Your task to perform on an android device: turn off javascript in the chrome app Image 0: 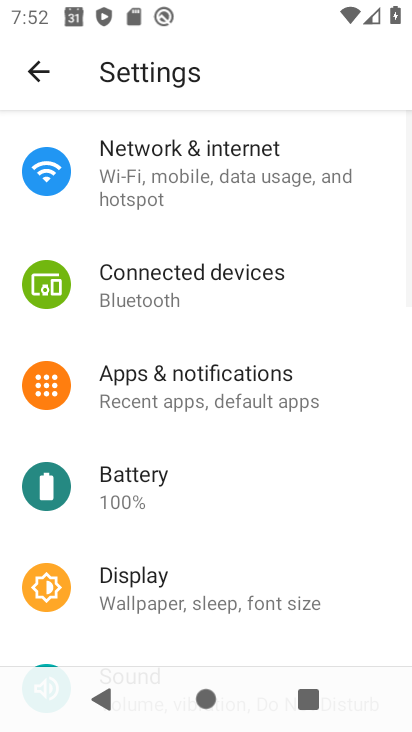
Step 0: press home button
Your task to perform on an android device: turn off javascript in the chrome app Image 1: 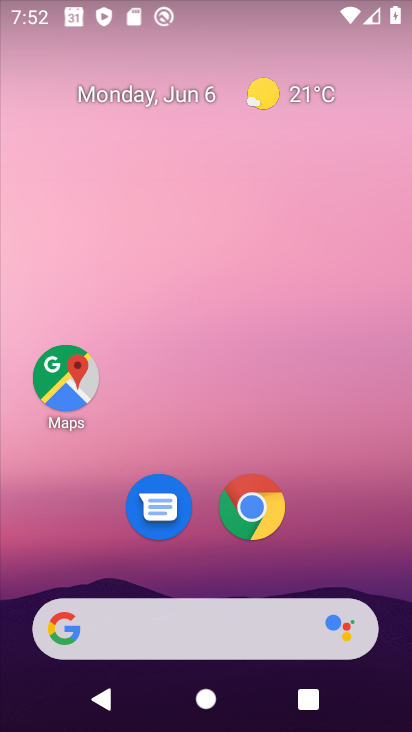
Step 1: drag from (203, 575) to (225, 168)
Your task to perform on an android device: turn off javascript in the chrome app Image 2: 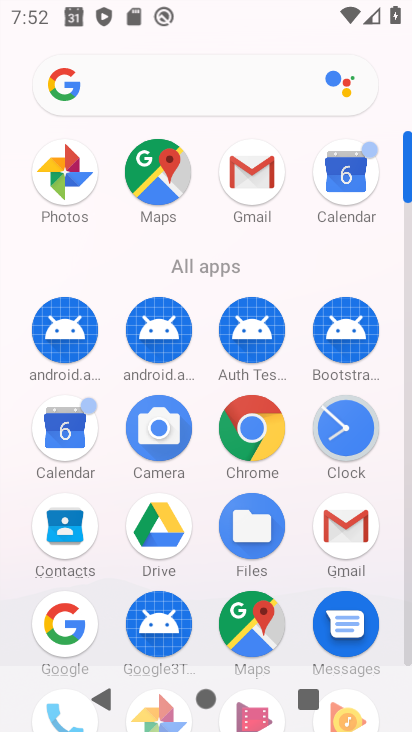
Step 2: click (260, 430)
Your task to perform on an android device: turn off javascript in the chrome app Image 3: 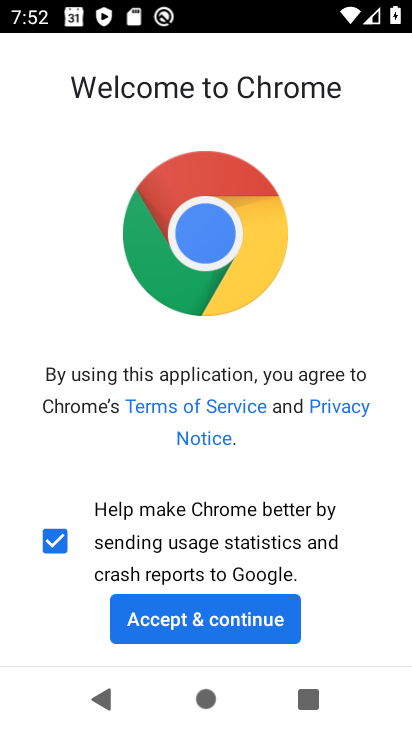
Step 3: click (162, 627)
Your task to perform on an android device: turn off javascript in the chrome app Image 4: 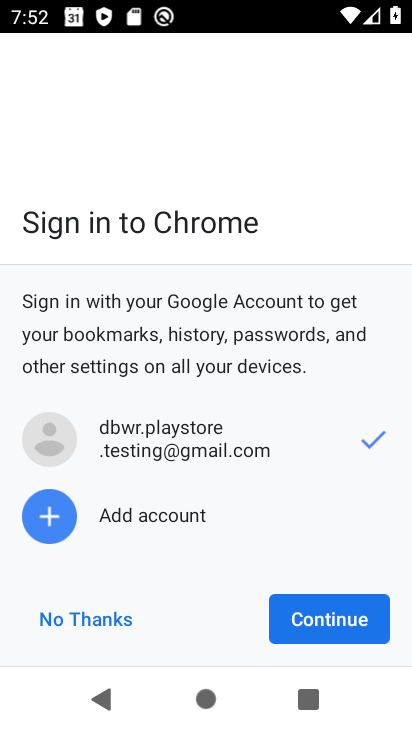
Step 4: click (330, 618)
Your task to perform on an android device: turn off javascript in the chrome app Image 5: 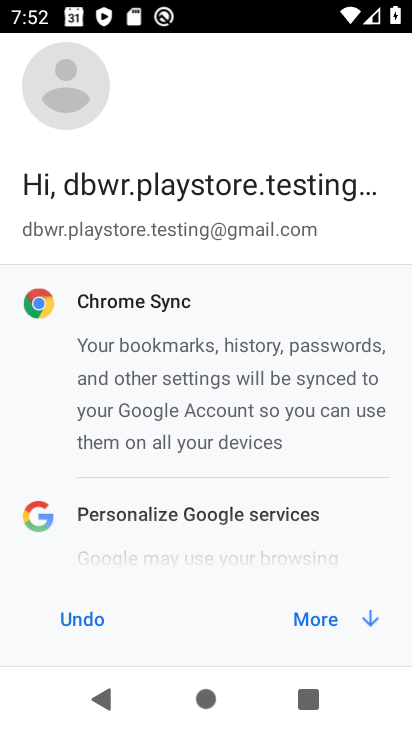
Step 5: click (330, 618)
Your task to perform on an android device: turn off javascript in the chrome app Image 6: 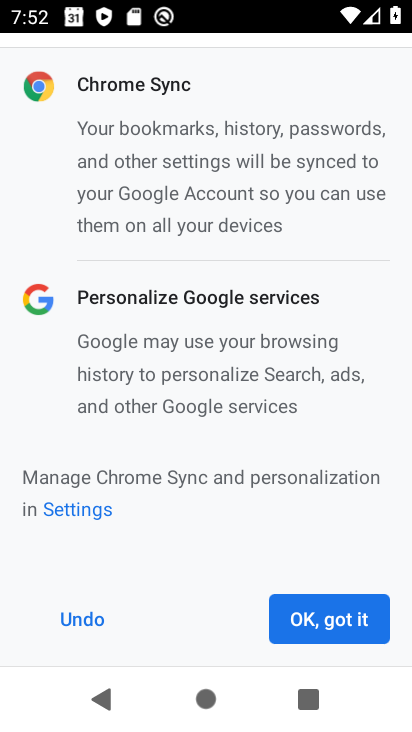
Step 6: click (330, 618)
Your task to perform on an android device: turn off javascript in the chrome app Image 7: 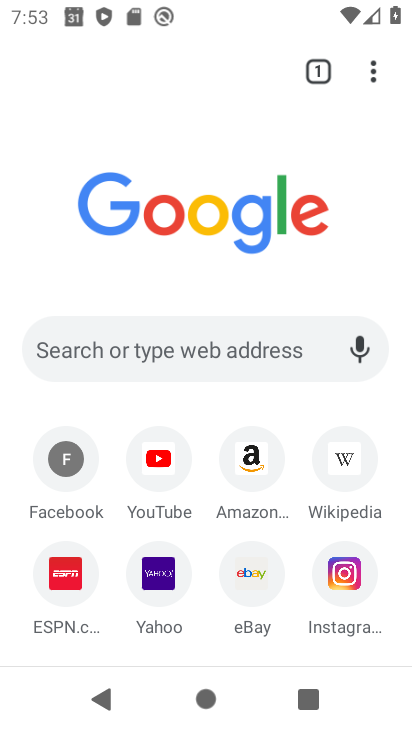
Step 7: drag from (260, 616) to (264, 375)
Your task to perform on an android device: turn off javascript in the chrome app Image 8: 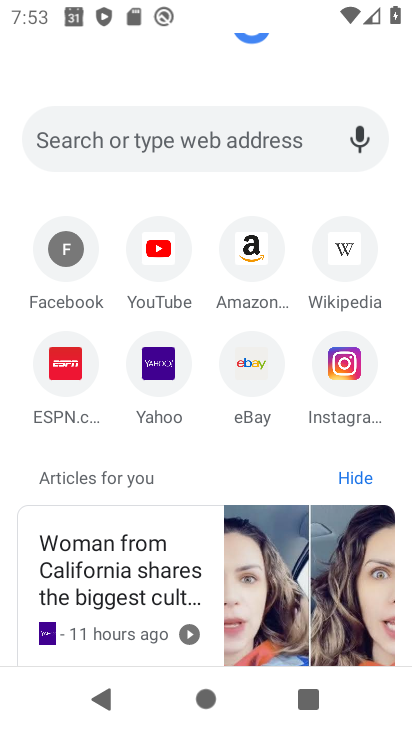
Step 8: drag from (268, 434) to (277, 698)
Your task to perform on an android device: turn off javascript in the chrome app Image 9: 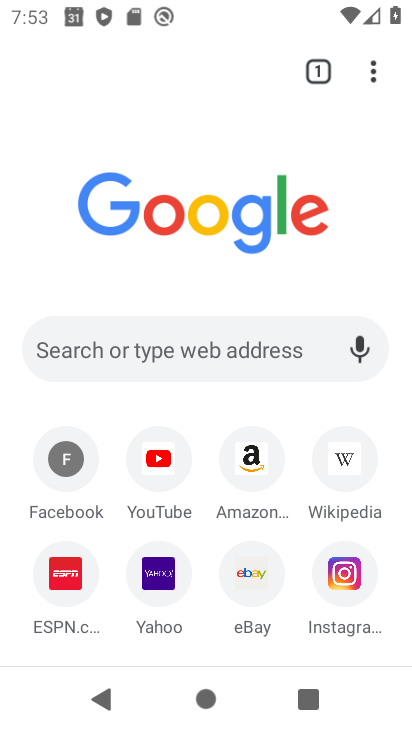
Step 9: drag from (285, 640) to (283, 241)
Your task to perform on an android device: turn off javascript in the chrome app Image 10: 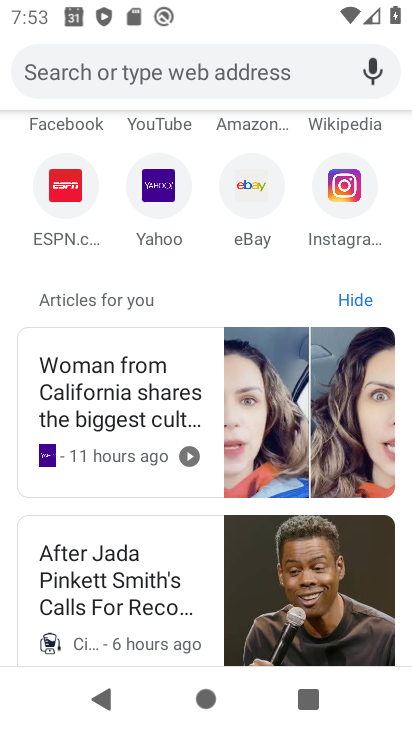
Step 10: drag from (260, 267) to (229, 637)
Your task to perform on an android device: turn off javascript in the chrome app Image 11: 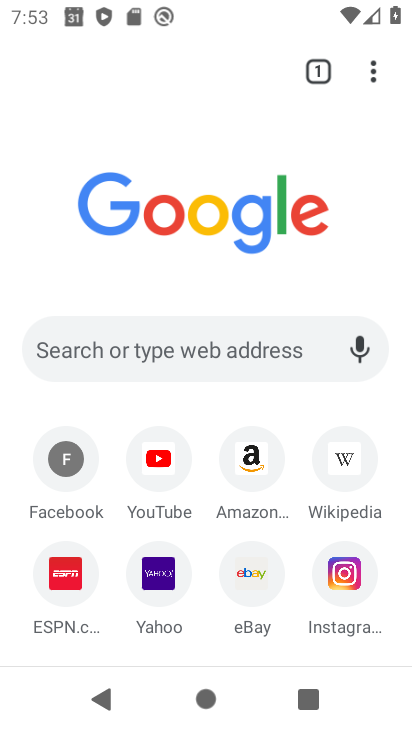
Step 11: drag from (222, 624) to (264, 270)
Your task to perform on an android device: turn off javascript in the chrome app Image 12: 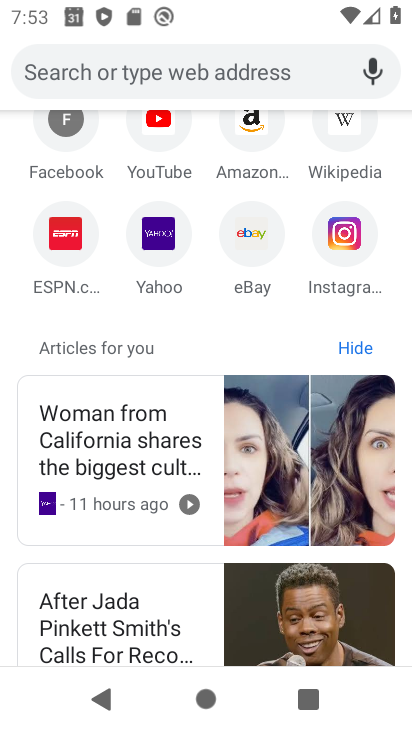
Step 12: drag from (237, 320) to (202, 652)
Your task to perform on an android device: turn off javascript in the chrome app Image 13: 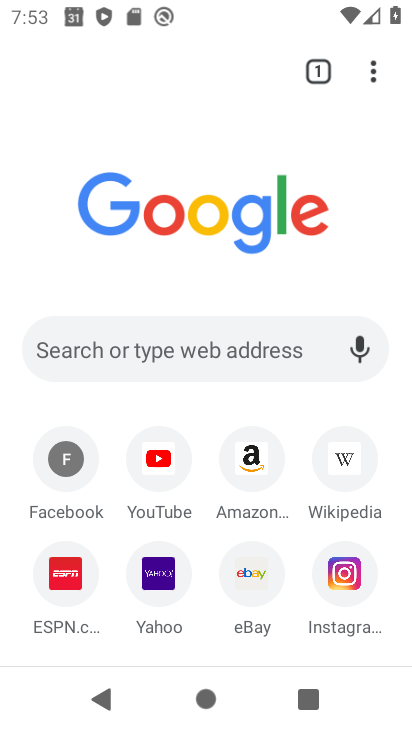
Step 13: click (368, 79)
Your task to perform on an android device: turn off javascript in the chrome app Image 14: 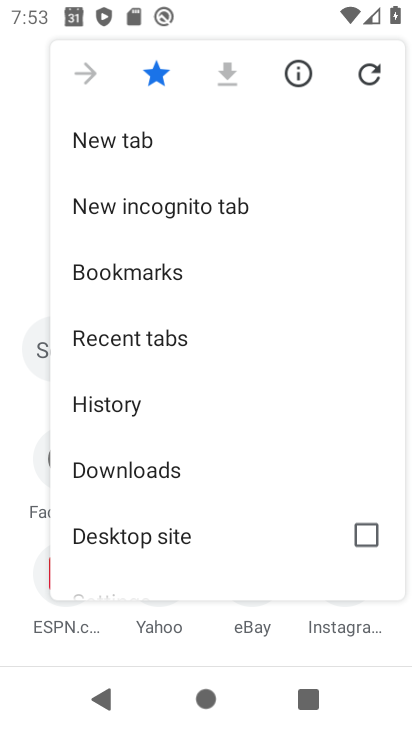
Step 14: drag from (236, 504) to (246, 252)
Your task to perform on an android device: turn off javascript in the chrome app Image 15: 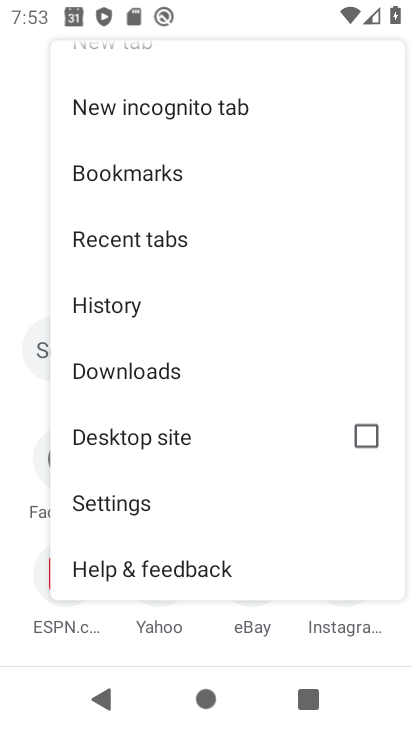
Step 15: click (147, 519)
Your task to perform on an android device: turn off javascript in the chrome app Image 16: 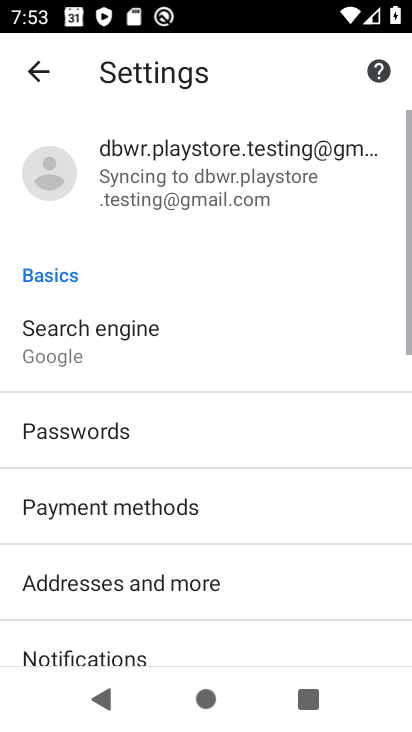
Step 16: drag from (199, 557) to (231, 233)
Your task to perform on an android device: turn off javascript in the chrome app Image 17: 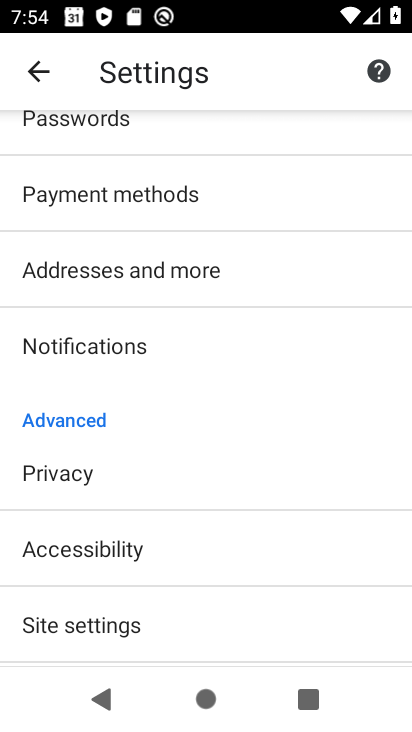
Step 17: drag from (103, 621) to (128, 482)
Your task to perform on an android device: turn off javascript in the chrome app Image 18: 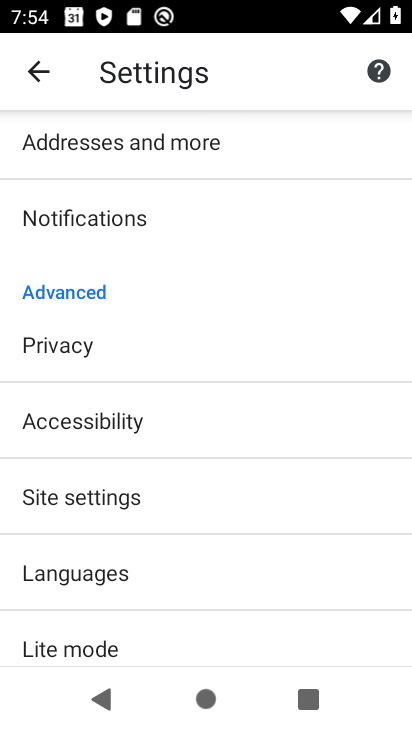
Step 18: click (120, 497)
Your task to perform on an android device: turn off javascript in the chrome app Image 19: 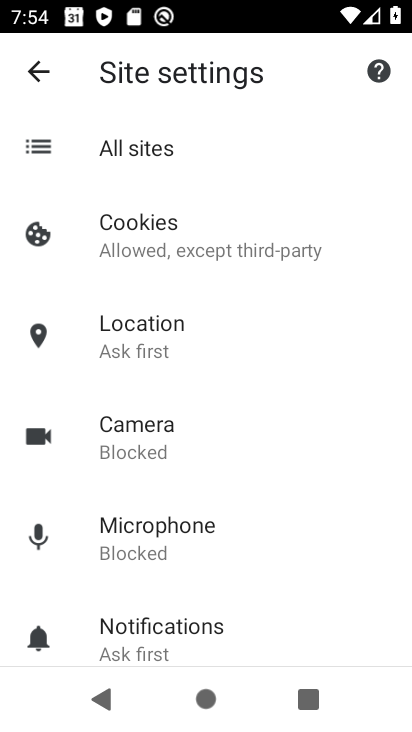
Step 19: drag from (160, 554) to (218, 249)
Your task to perform on an android device: turn off javascript in the chrome app Image 20: 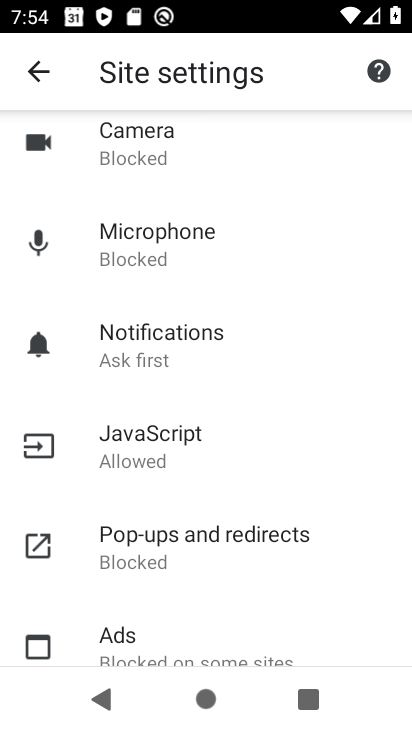
Step 20: drag from (171, 601) to (238, 381)
Your task to perform on an android device: turn off javascript in the chrome app Image 21: 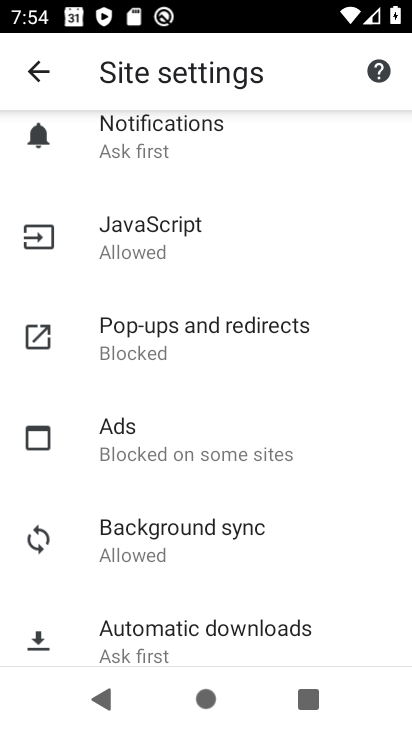
Step 21: drag from (175, 615) to (206, 399)
Your task to perform on an android device: turn off javascript in the chrome app Image 22: 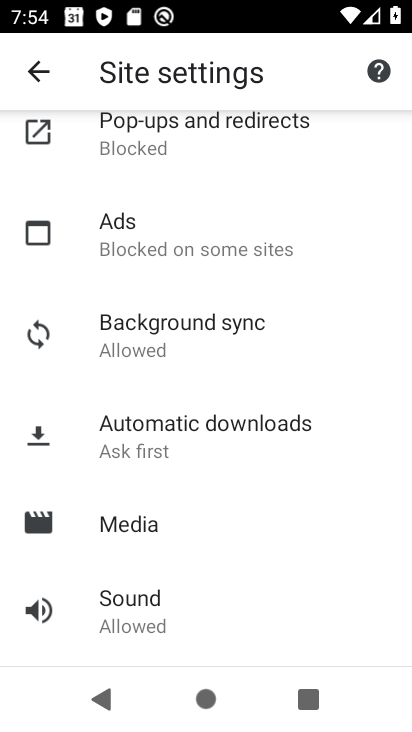
Step 22: drag from (203, 233) to (152, 641)
Your task to perform on an android device: turn off javascript in the chrome app Image 23: 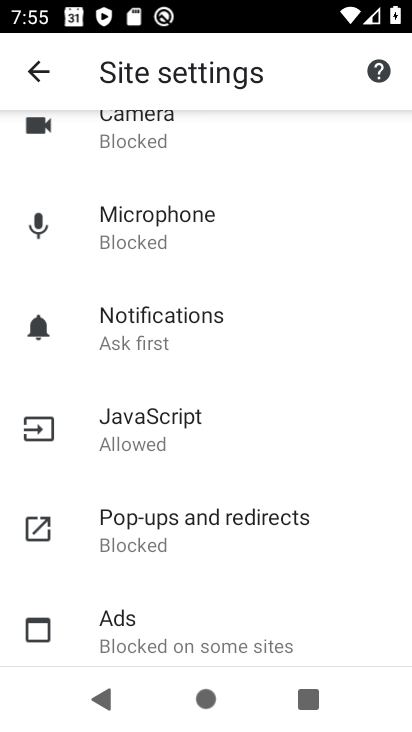
Step 23: click (154, 434)
Your task to perform on an android device: turn off javascript in the chrome app Image 24: 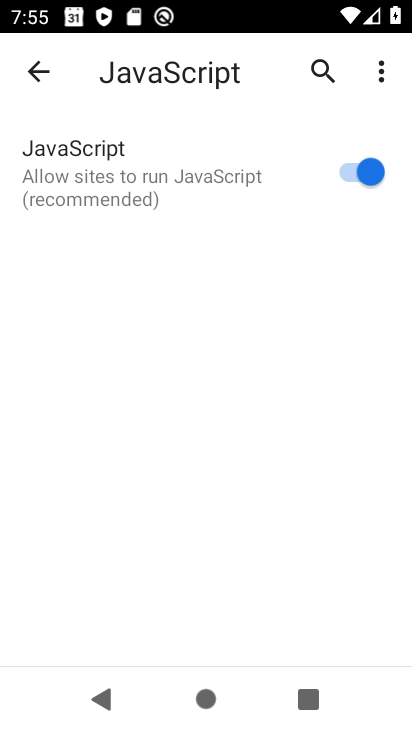
Step 24: click (342, 173)
Your task to perform on an android device: turn off javascript in the chrome app Image 25: 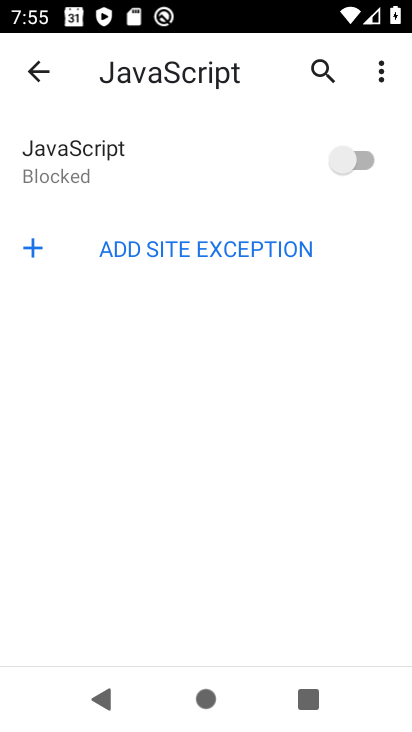
Step 25: task complete